Your task to perform on an android device: stop showing notifications on the lock screen Image 0: 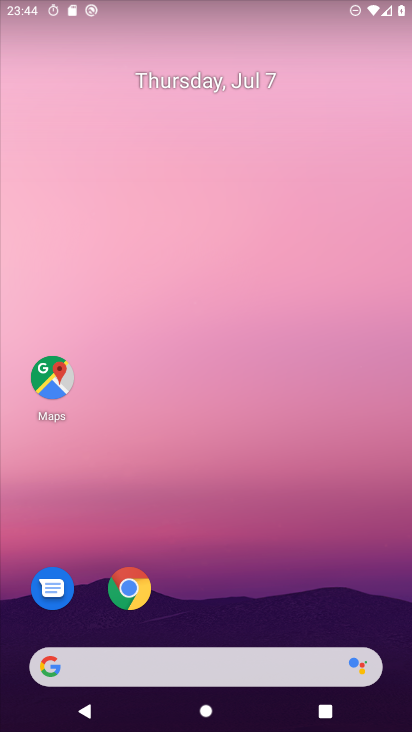
Step 0: drag from (292, 512) to (253, 37)
Your task to perform on an android device: stop showing notifications on the lock screen Image 1: 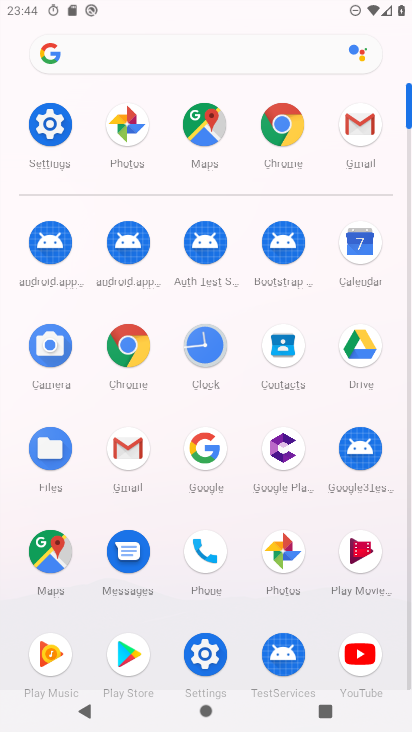
Step 1: click (48, 118)
Your task to perform on an android device: stop showing notifications on the lock screen Image 2: 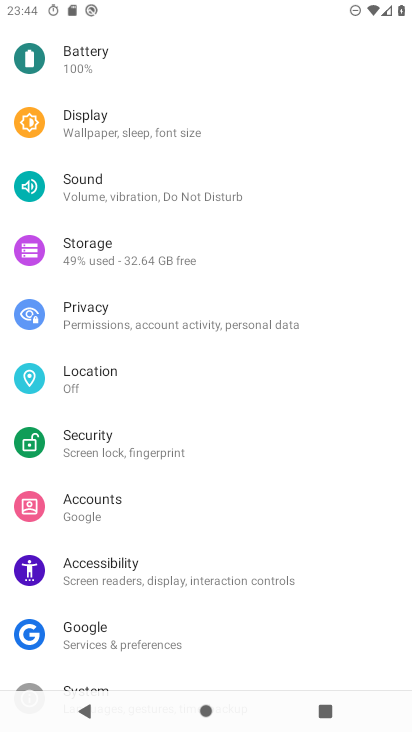
Step 2: drag from (224, 115) to (190, 538)
Your task to perform on an android device: stop showing notifications on the lock screen Image 3: 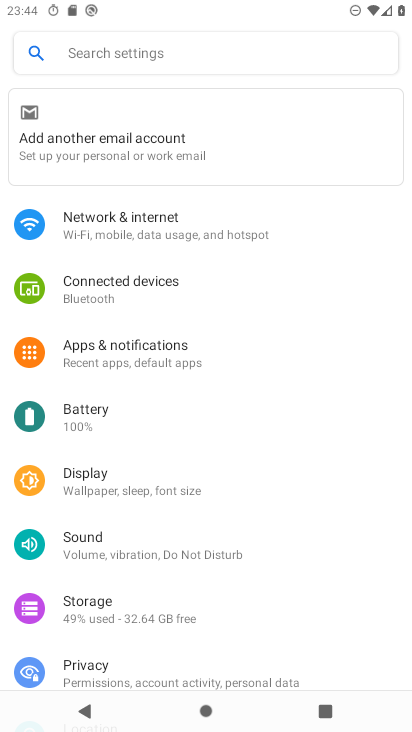
Step 3: click (165, 355)
Your task to perform on an android device: stop showing notifications on the lock screen Image 4: 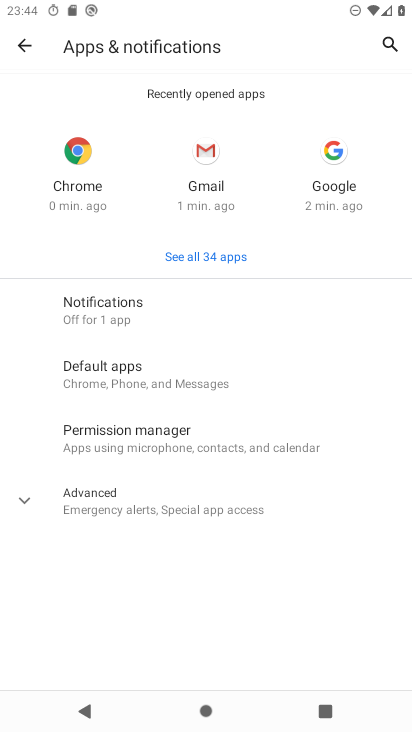
Step 4: click (121, 318)
Your task to perform on an android device: stop showing notifications on the lock screen Image 5: 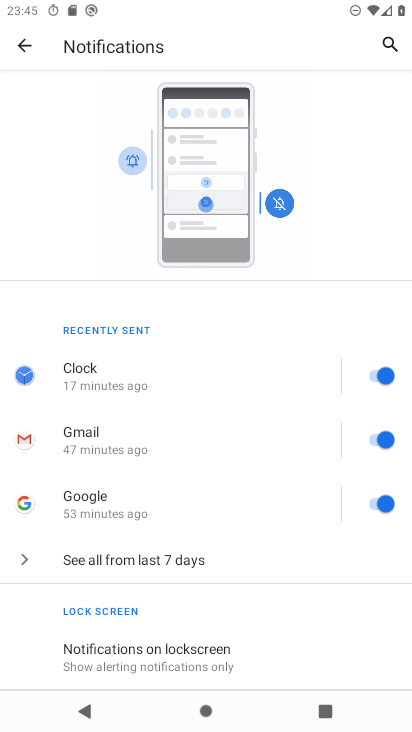
Step 5: click (192, 653)
Your task to perform on an android device: stop showing notifications on the lock screen Image 6: 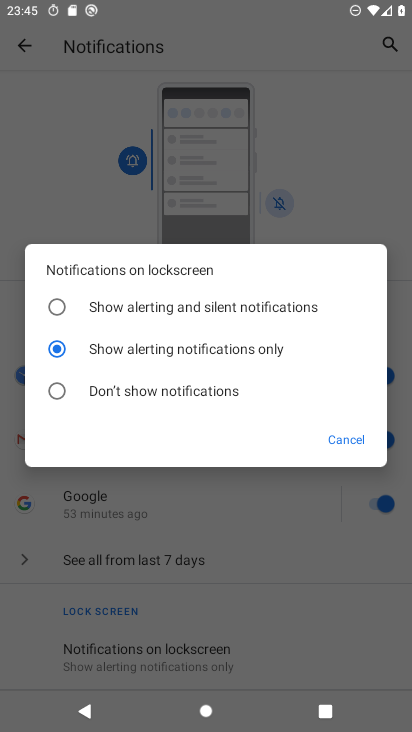
Step 6: click (110, 386)
Your task to perform on an android device: stop showing notifications on the lock screen Image 7: 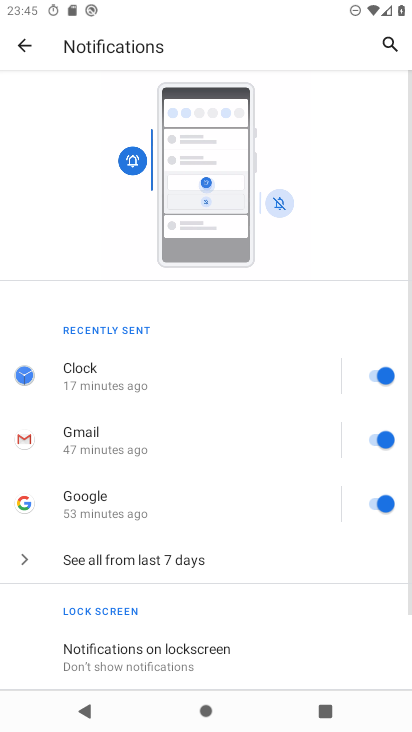
Step 7: task complete